Your task to perform on an android device: turn on bluetooth scan Image 0: 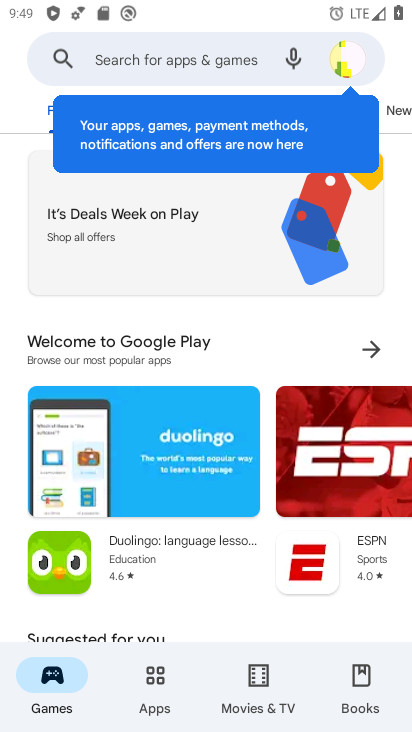
Step 0: press home button
Your task to perform on an android device: turn on bluetooth scan Image 1: 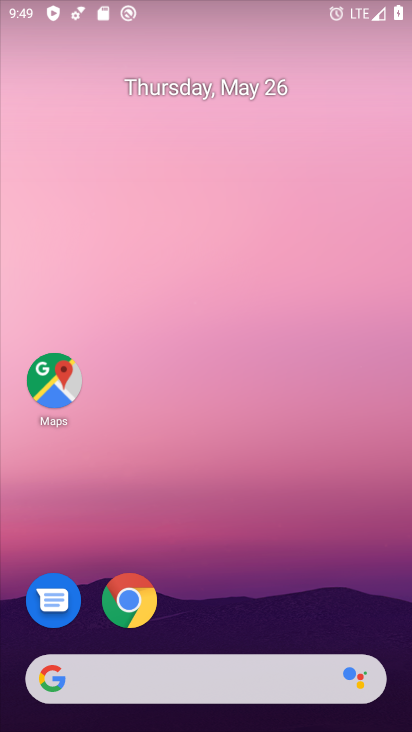
Step 1: drag from (300, 592) to (309, 2)
Your task to perform on an android device: turn on bluetooth scan Image 2: 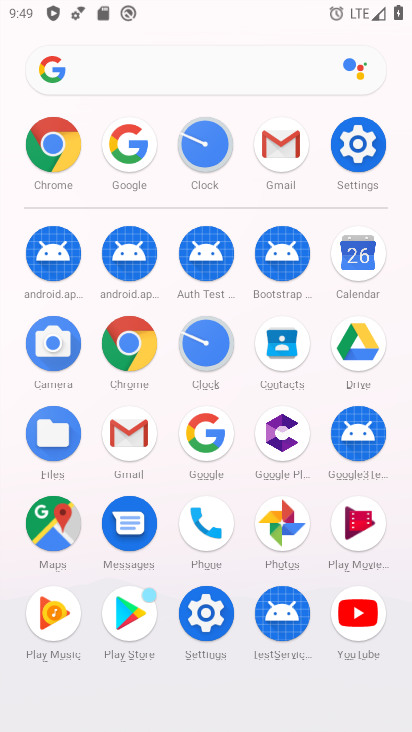
Step 2: click (349, 138)
Your task to perform on an android device: turn on bluetooth scan Image 3: 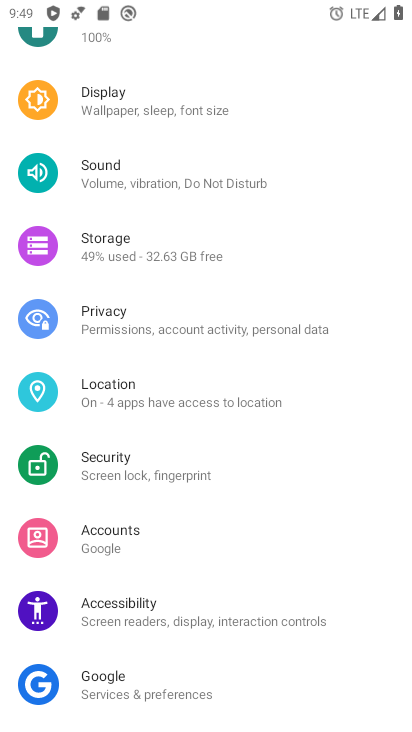
Step 3: drag from (265, 101) to (115, 594)
Your task to perform on an android device: turn on bluetooth scan Image 4: 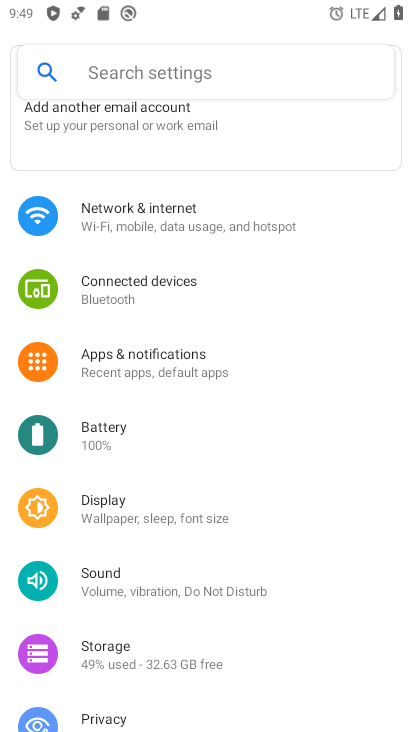
Step 4: drag from (182, 650) to (258, 123)
Your task to perform on an android device: turn on bluetooth scan Image 5: 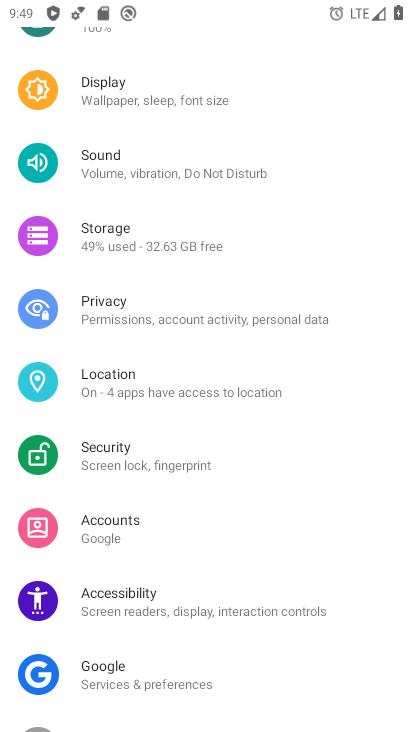
Step 5: click (180, 403)
Your task to perform on an android device: turn on bluetooth scan Image 6: 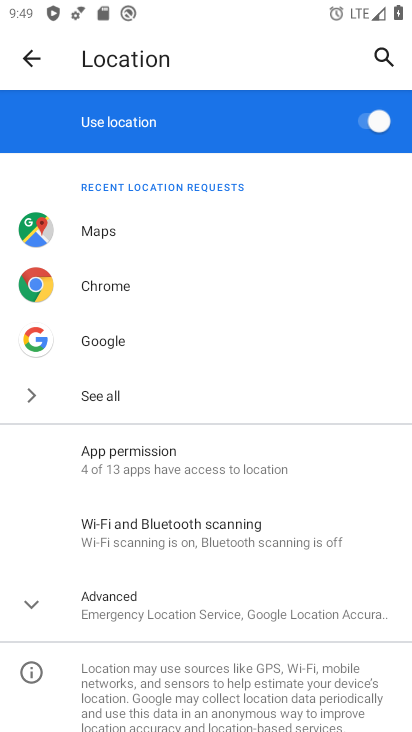
Step 6: click (280, 616)
Your task to perform on an android device: turn on bluetooth scan Image 7: 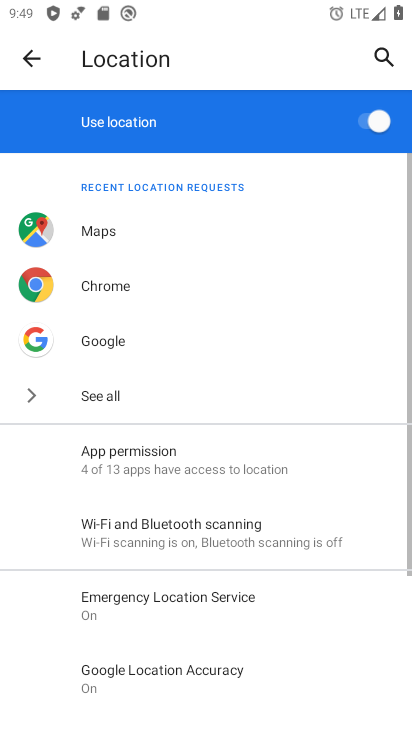
Step 7: drag from (277, 681) to (333, 285)
Your task to perform on an android device: turn on bluetooth scan Image 8: 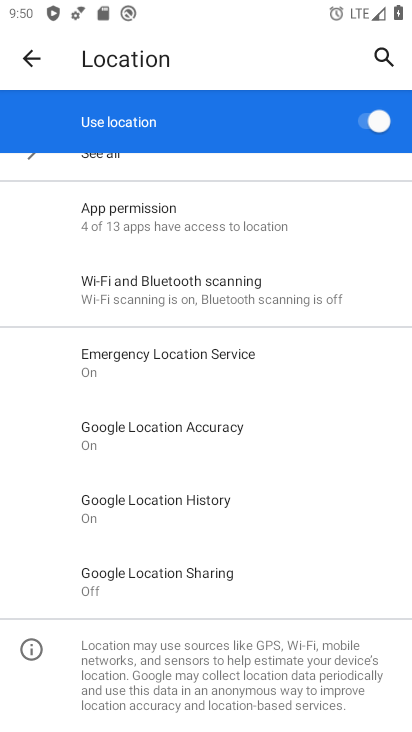
Step 8: click (242, 292)
Your task to perform on an android device: turn on bluetooth scan Image 9: 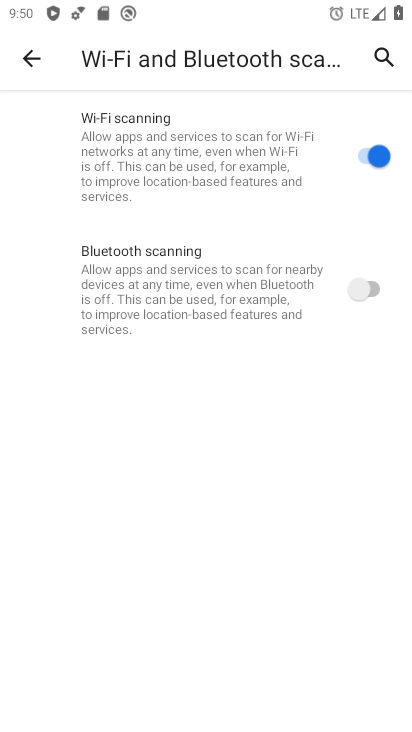
Step 9: click (372, 282)
Your task to perform on an android device: turn on bluetooth scan Image 10: 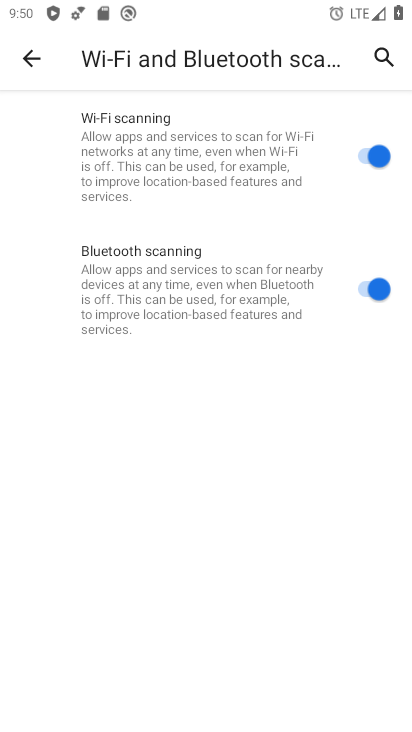
Step 10: task complete